Your task to perform on an android device: open a bookmark in the chrome app Image 0: 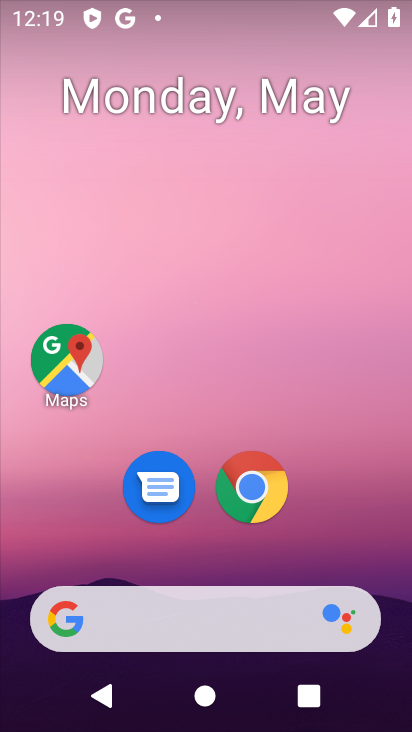
Step 0: click (253, 488)
Your task to perform on an android device: open a bookmark in the chrome app Image 1: 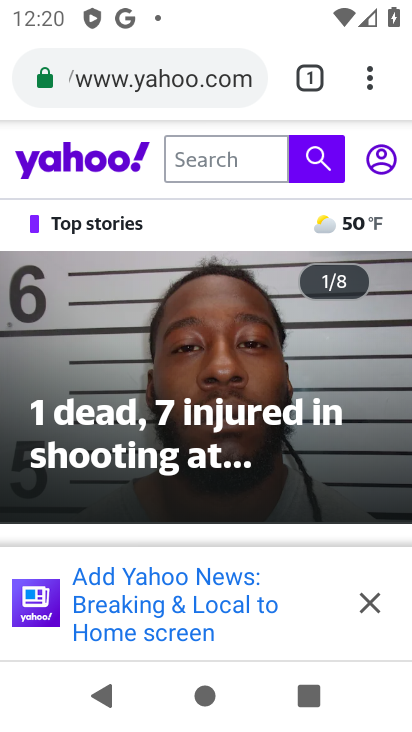
Step 1: click (371, 79)
Your task to perform on an android device: open a bookmark in the chrome app Image 2: 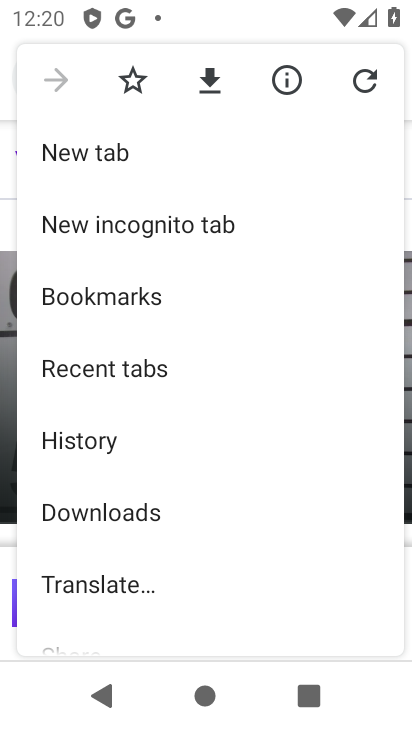
Step 2: click (142, 294)
Your task to perform on an android device: open a bookmark in the chrome app Image 3: 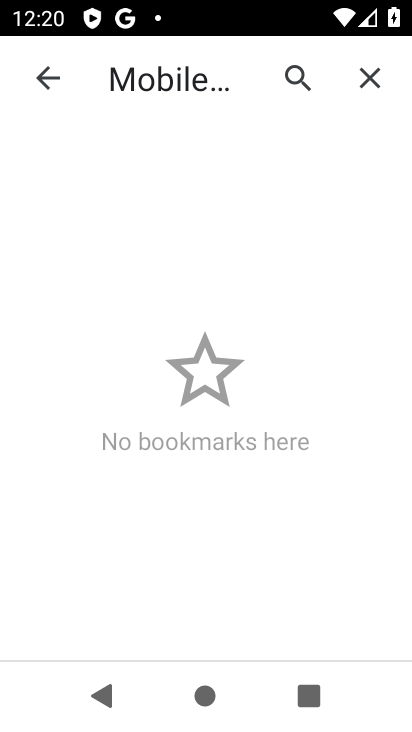
Step 3: task complete